Your task to perform on an android device: Open Google Chrome and open the bookmarks view Image 0: 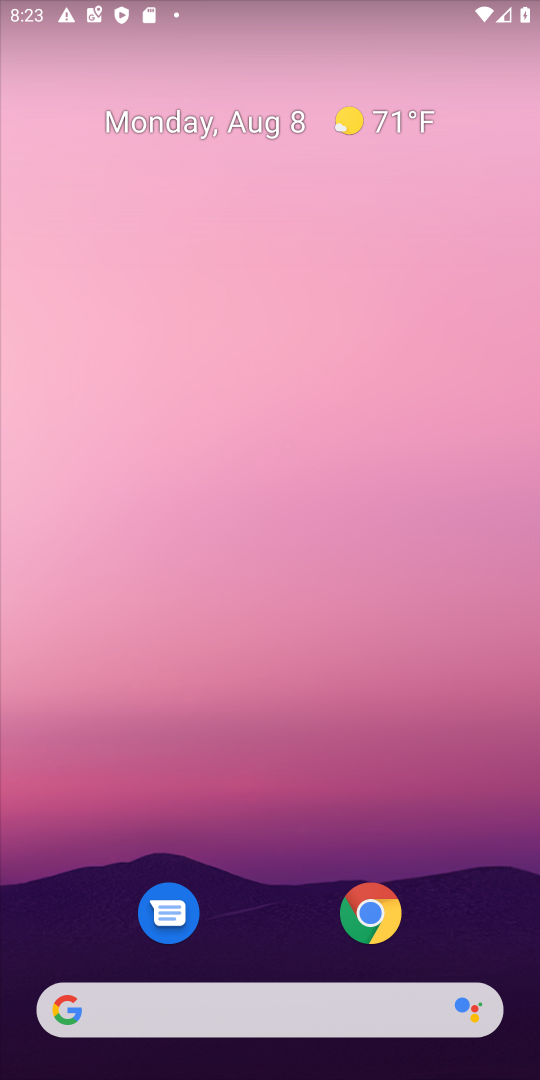
Step 0: click (373, 914)
Your task to perform on an android device: Open Google Chrome and open the bookmarks view Image 1: 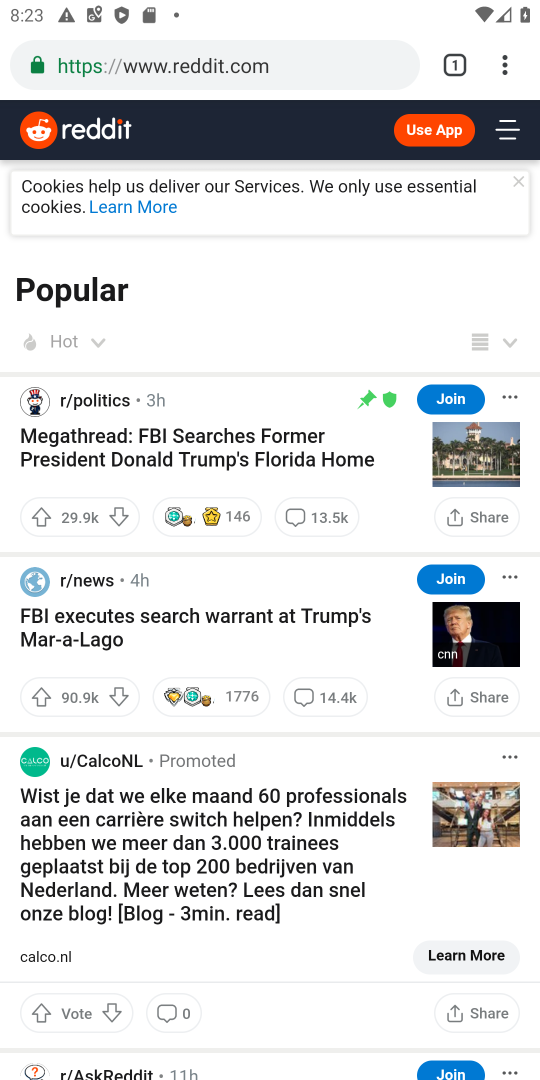
Step 1: click (510, 76)
Your task to perform on an android device: Open Google Chrome and open the bookmarks view Image 2: 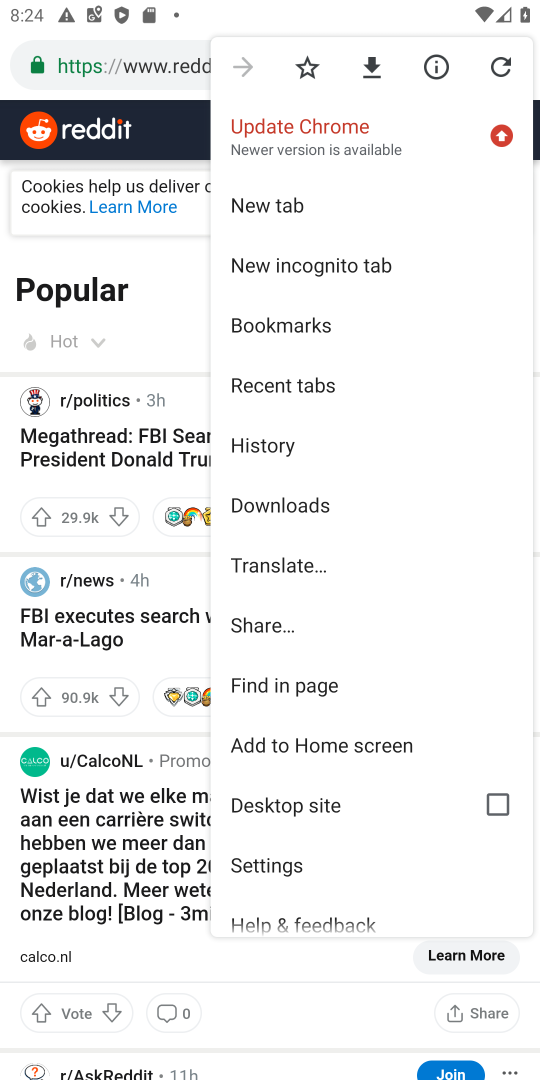
Step 2: click (298, 330)
Your task to perform on an android device: Open Google Chrome and open the bookmarks view Image 3: 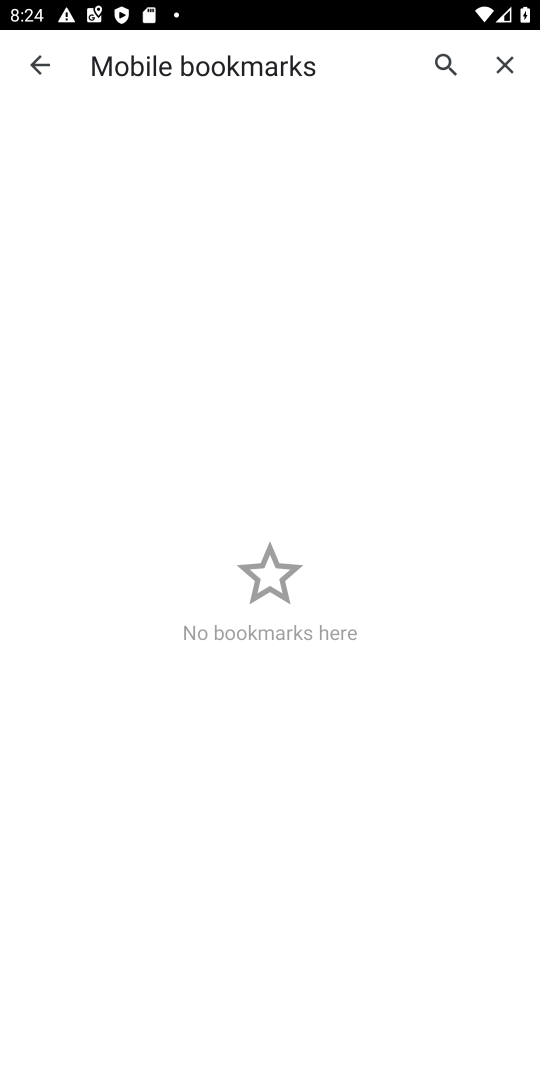
Step 3: task complete